Your task to perform on an android device: Open calendar and show me the first week of next month Image 0: 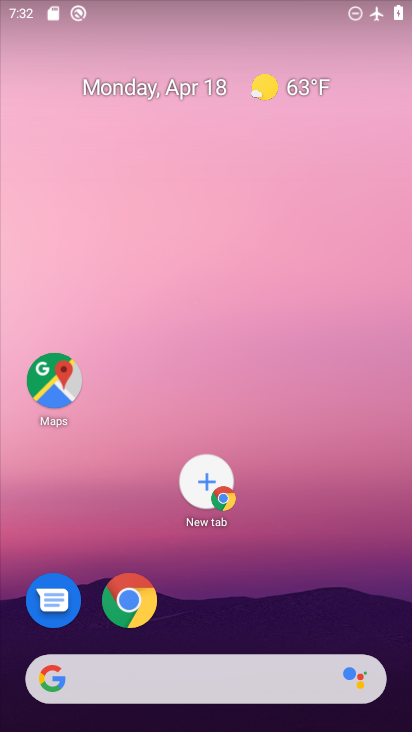
Step 0: drag from (277, 593) to (274, 0)
Your task to perform on an android device: Open calendar and show me the first week of next month Image 1: 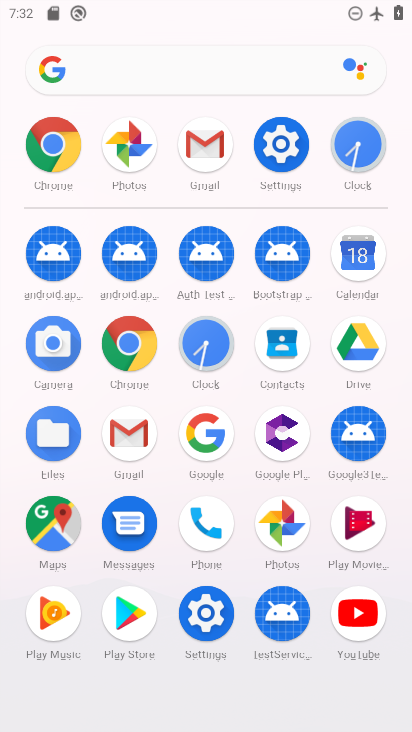
Step 1: click (362, 256)
Your task to perform on an android device: Open calendar and show me the first week of next month Image 2: 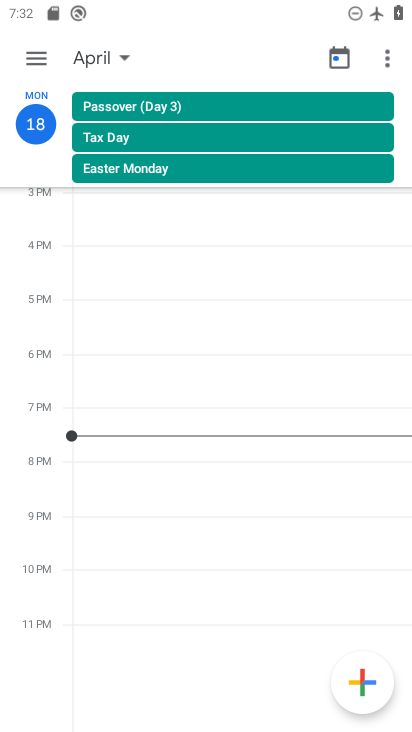
Step 2: click (37, 60)
Your task to perform on an android device: Open calendar and show me the first week of next month Image 3: 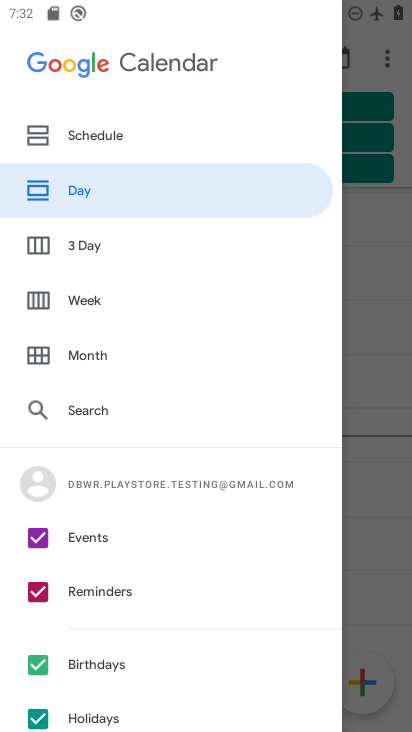
Step 3: click (73, 297)
Your task to perform on an android device: Open calendar and show me the first week of next month Image 4: 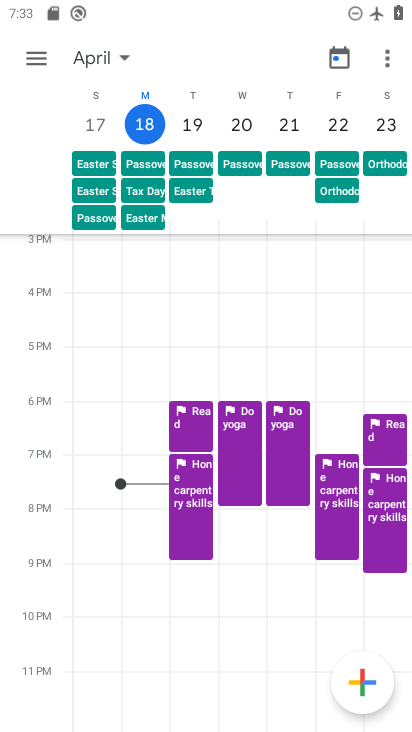
Step 4: click (124, 56)
Your task to perform on an android device: Open calendar and show me the first week of next month Image 5: 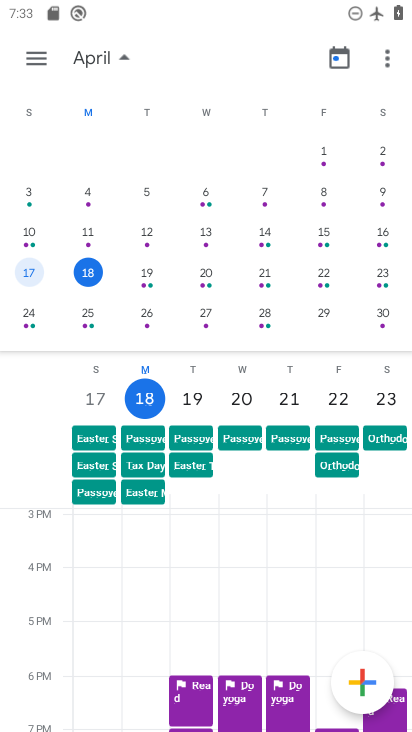
Step 5: task complete